Your task to perform on an android device: turn on airplane mode Image 0: 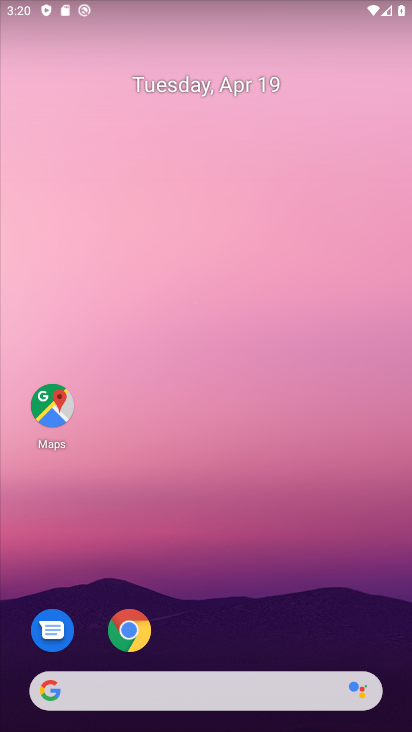
Step 0: drag from (245, 603) to (204, 26)
Your task to perform on an android device: turn on airplane mode Image 1: 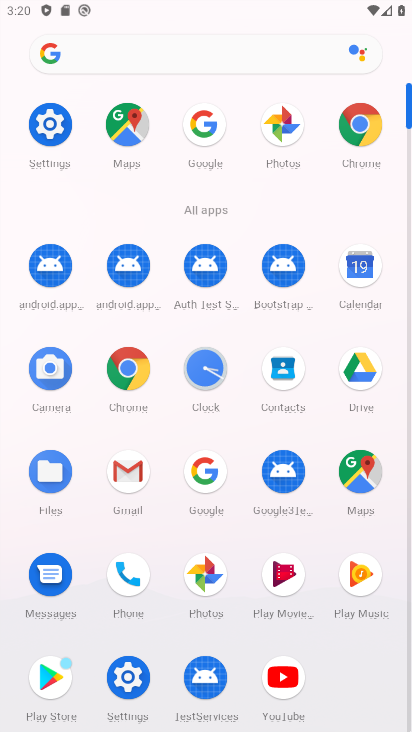
Step 1: click (49, 133)
Your task to perform on an android device: turn on airplane mode Image 2: 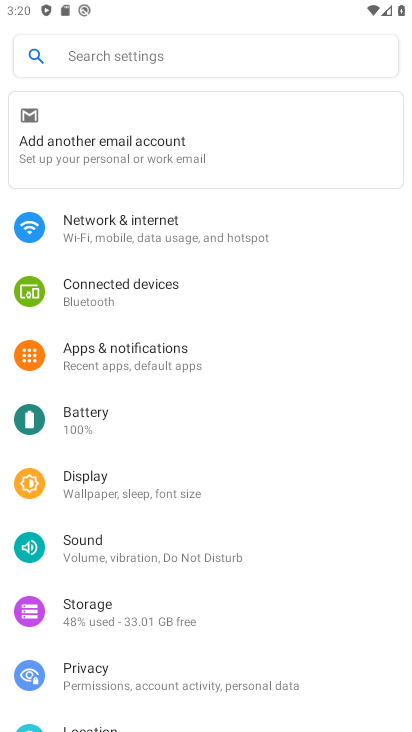
Step 2: click (149, 233)
Your task to perform on an android device: turn on airplane mode Image 3: 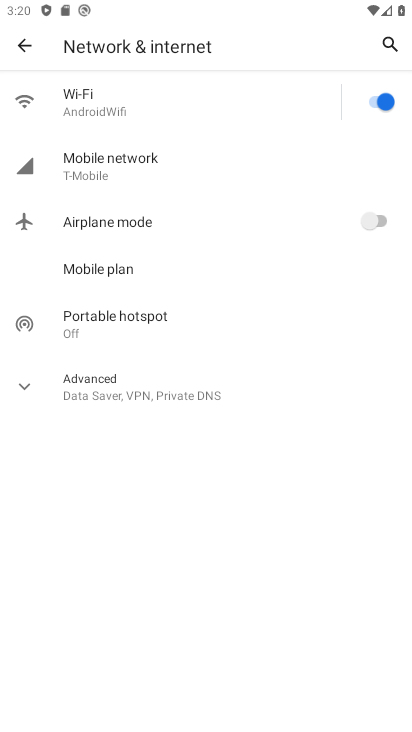
Step 3: click (380, 230)
Your task to perform on an android device: turn on airplane mode Image 4: 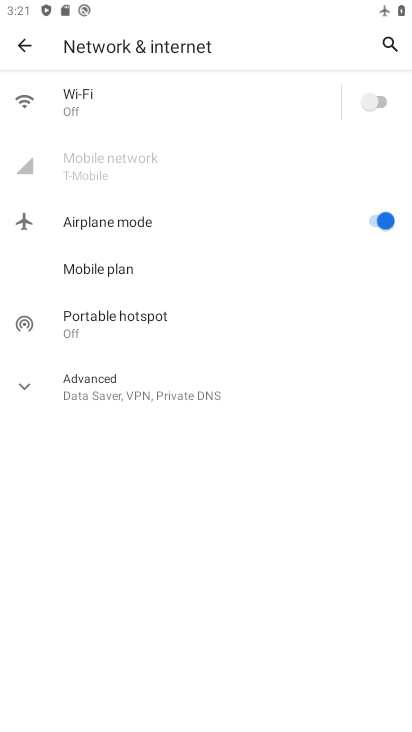
Step 4: task complete